Your task to perform on an android device: Open location settings Image 0: 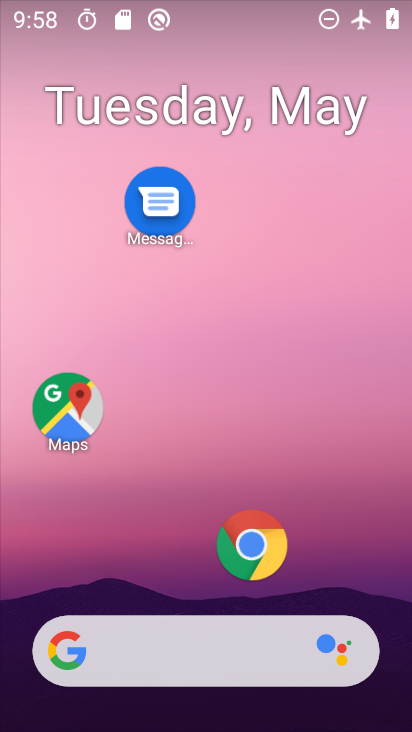
Step 0: drag from (184, 591) to (187, 123)
Your task to perform on an android device: Open location settings Image 1: 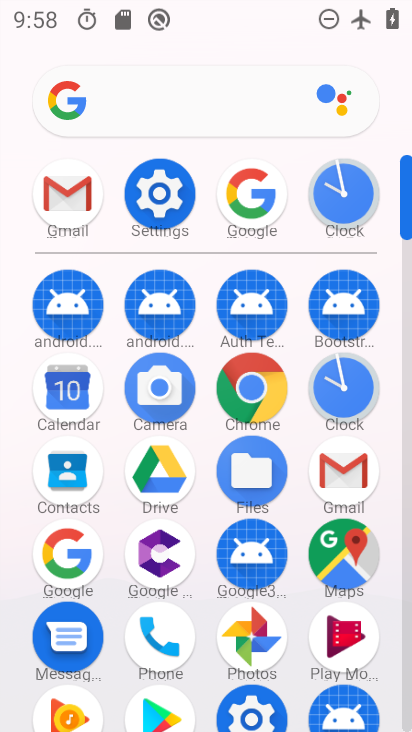
Step 1: click (188, 178)
Your task to perform on an android device: Open location settings Image 2: 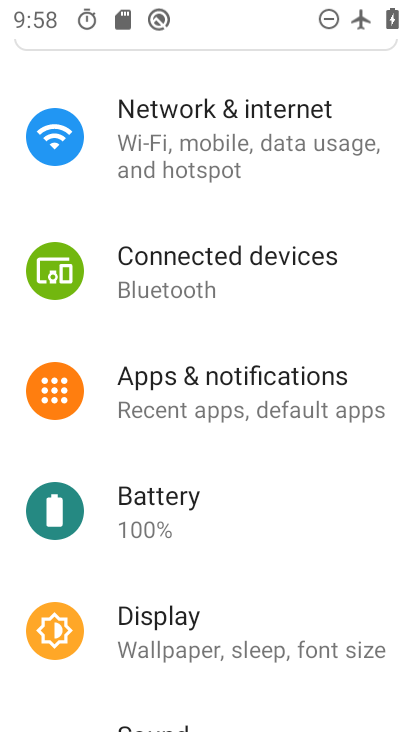
Step 2: drag from (228, 644) to (222, 314)
Your task to perform on an android device: Open location settings Image 3: 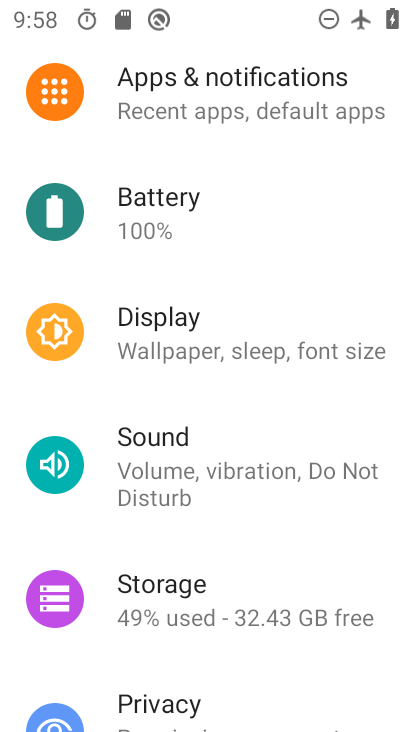
Step 3: drag from (232, 590) to (222, 303)
Your task to perform on an android device: Open location settings Image 4: 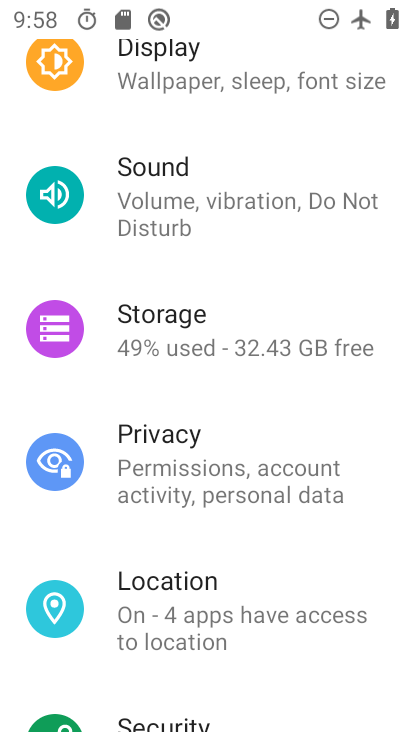
Step 4: click (239, 576)
Your task to perform on an android device: Open location settings Image 5: 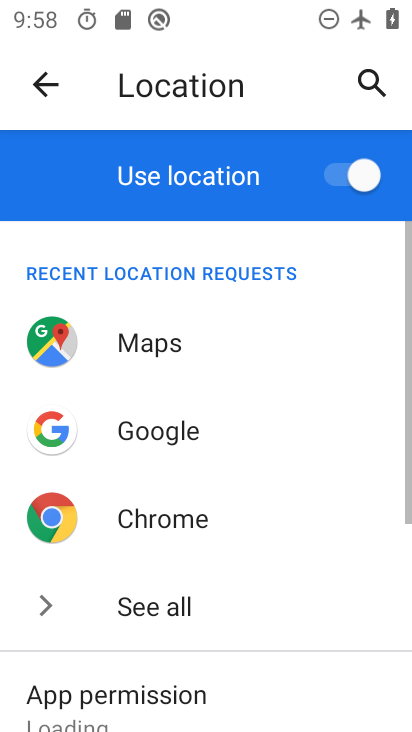
Step 5: task complete